Your task to perform on an android device: delete a single message in the gmail app Image 0: 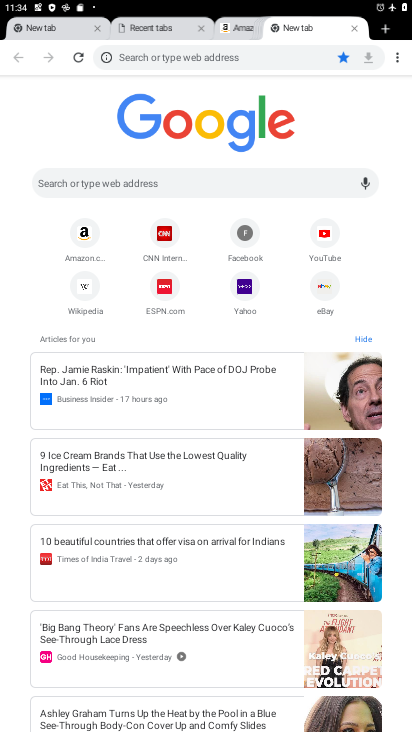
Step 0: press home button
Your task to perform on an android device: delete a single message in the gmail app Image 1: 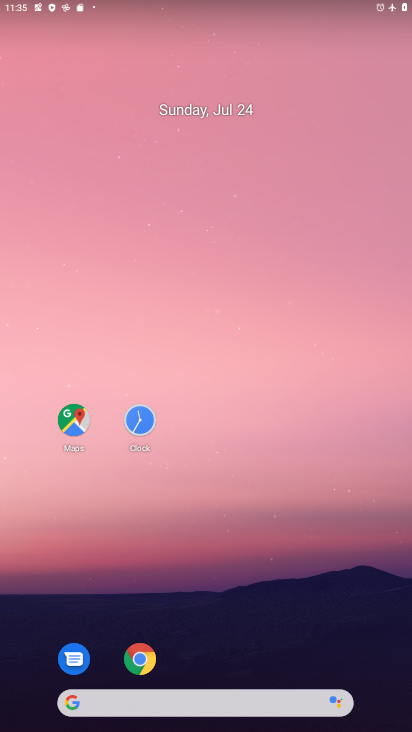
Step 1: drag from (379, 574) to (358, 175)
Your task to perform on an android device: delete a single message in the gmail app Image 2: 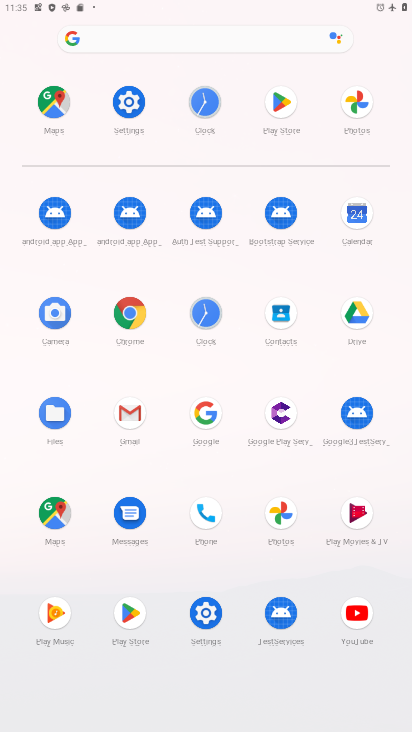
Step 2: click (125, 479)
Your task to perform on an android device: delete a single message in the gmail app Image 3: 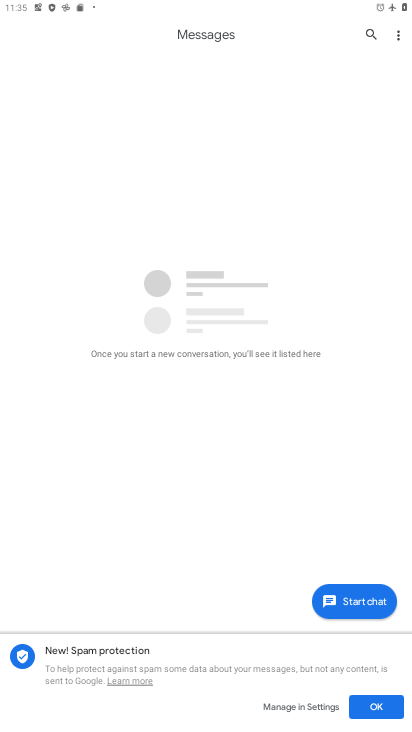
Step 3: press home button
Your task to perform on an android device: delete a single message in the gmail app Image 4: 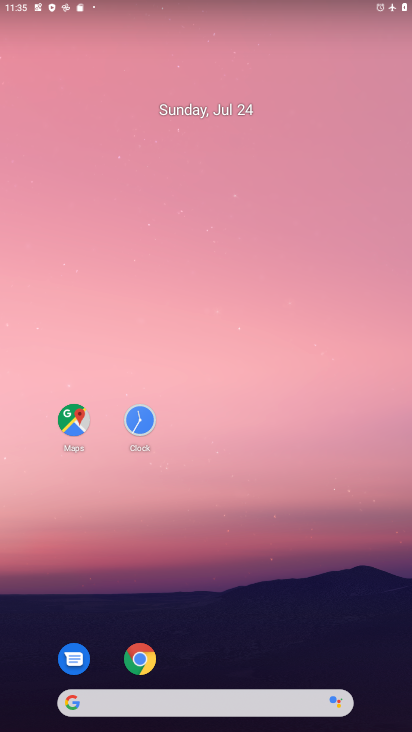
Step 4: drag from (378, 708) to (335, 51)
Your task to perform on an android device: delete a single message in the gmail app Image 5: 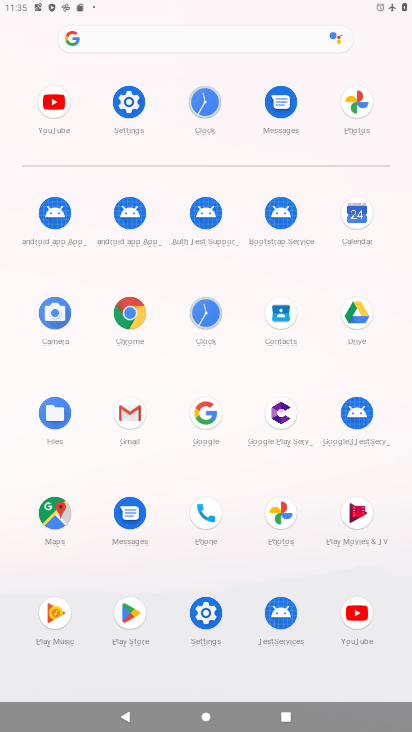
Step 5: click (133, 415)
Your task to perform on an android device: delete a single message in the gmail app Image 6: 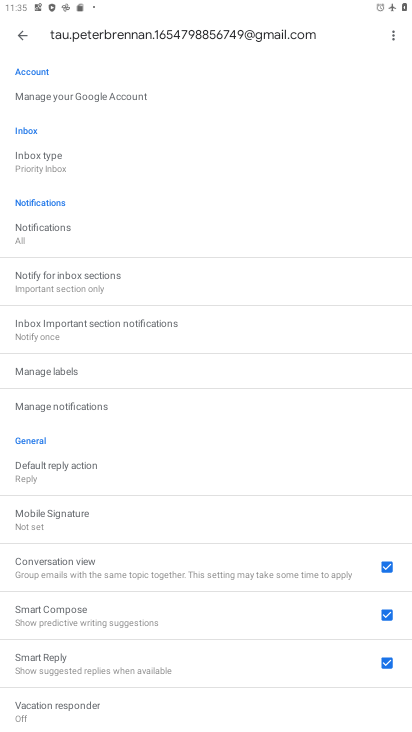
Step 6: click (11, 32)
Your task to perform on an android device: delete a single message in the gmail app Image 7: 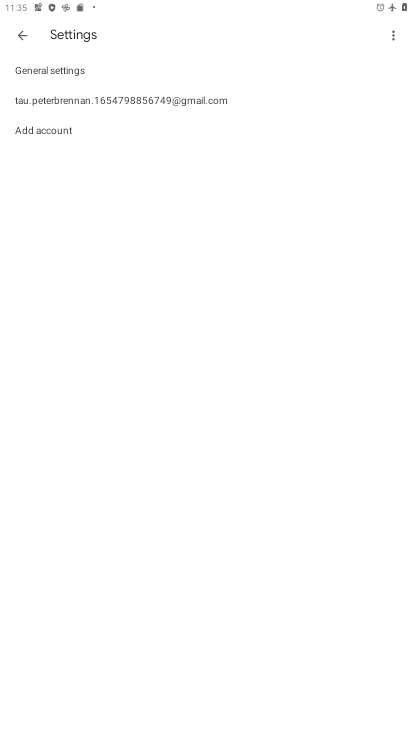
Step 7: click (17, 39)
Your task to perform on an android device: delete a single message in the gmail app Image 8: 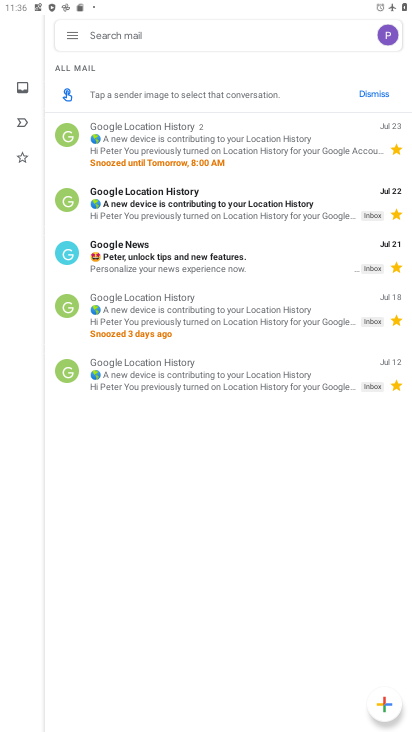
Step 8: click (280, 144)
Your task to perform on an android device: delete a single message in the gmail app Image 9: 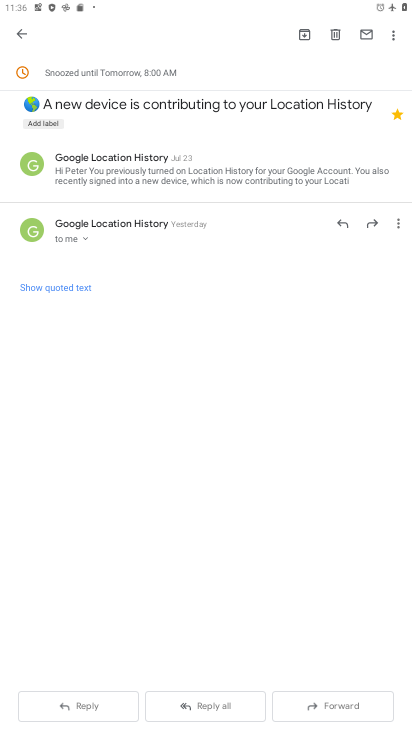
Step 9: click (336, 32)
Your task to perform on an android device: delete a single message in the gmail app Image 10: 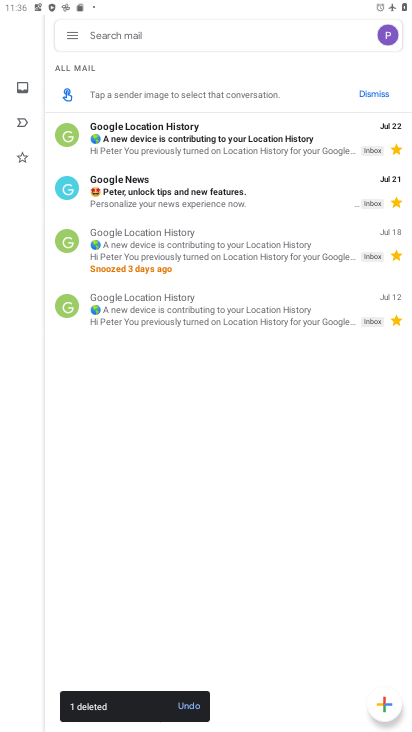
Step 10: task complete